Your task to perform on an android device: open a new tab in the chrome app Image 0: 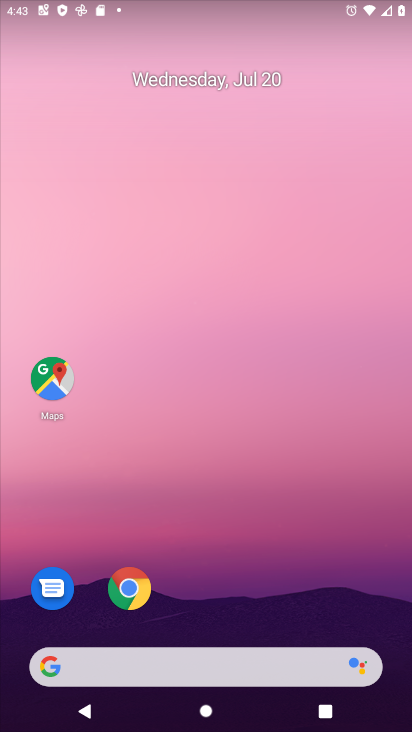
Step 0: drag from (232, 552) to (216, 62)
Your task to perform on an android device: open a new tab in the chrome app Image 1: 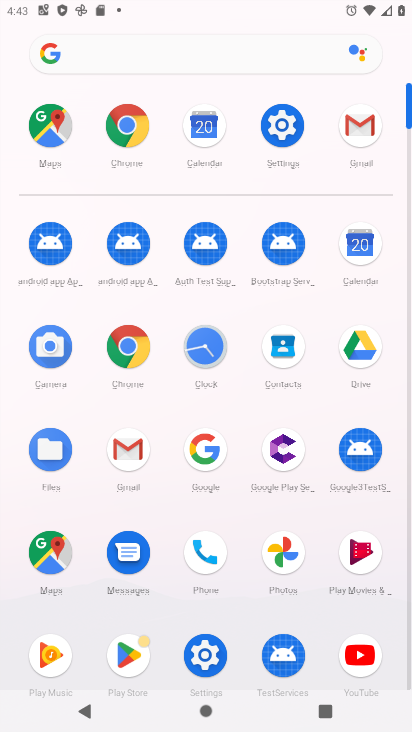
Step 1: click (130, 345)
Your task to perform on an android device: open a new tab in the chrome app Image 2: 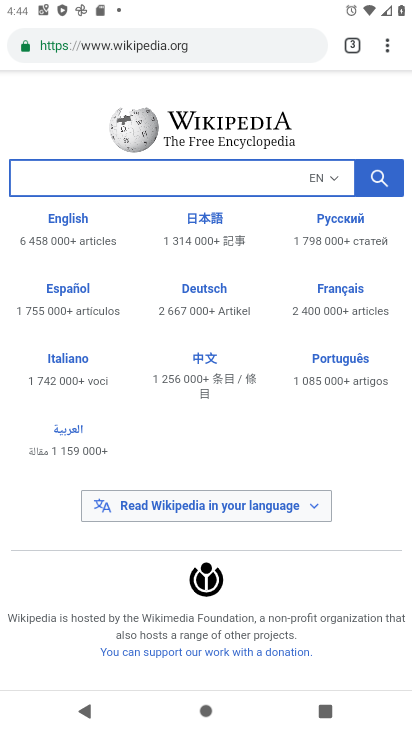
Step 2: task complete